Your task to perform on an android device: Is it going to rain today? Image 0: 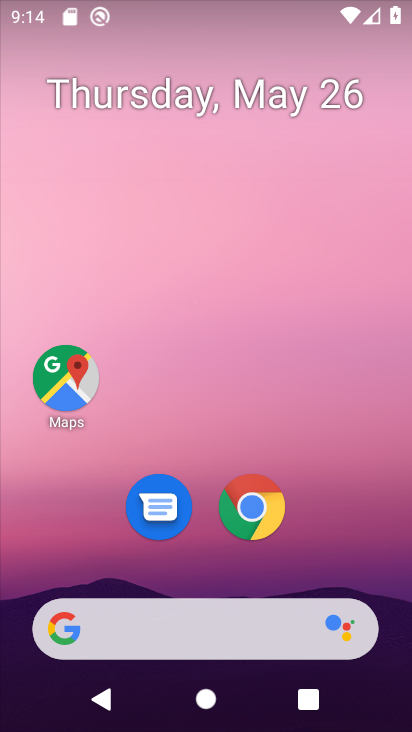
Step 0: click (253, 624)
Your task to perform on an android device: Is it going to rain today? Image 1: 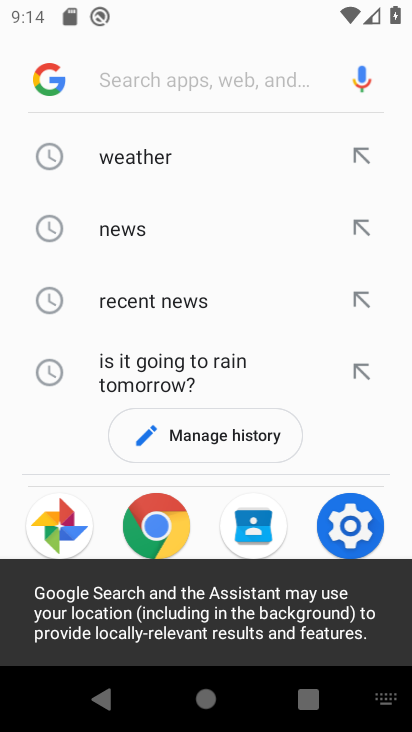
Step 1: click (162, 165)
Your task to perform on an android device: Is it going to rain today? Image 2: 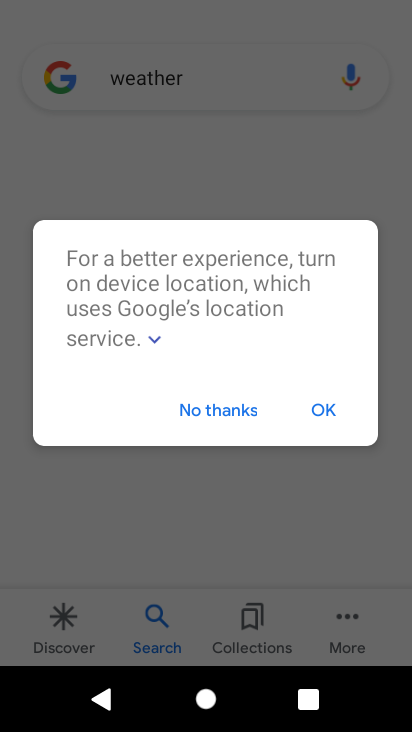
Step 2: click (252, 408)
Your task to perform on an android device: Is it going to rain today? Image 3: 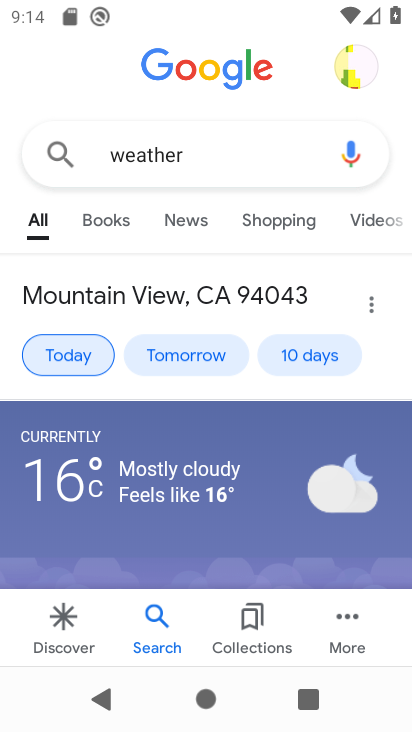
Step 3: task complete